Your task to perform on an android device: open sync settings in chrome Image 0: 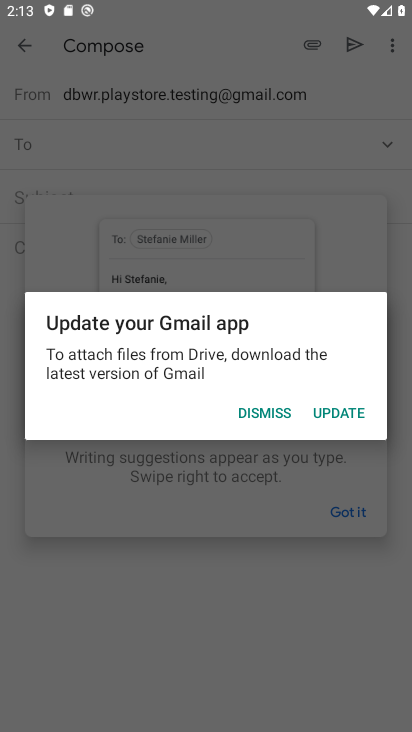
Step 0: press home button
Your task to perform on an android device: open sync settings in chrome Image 1: 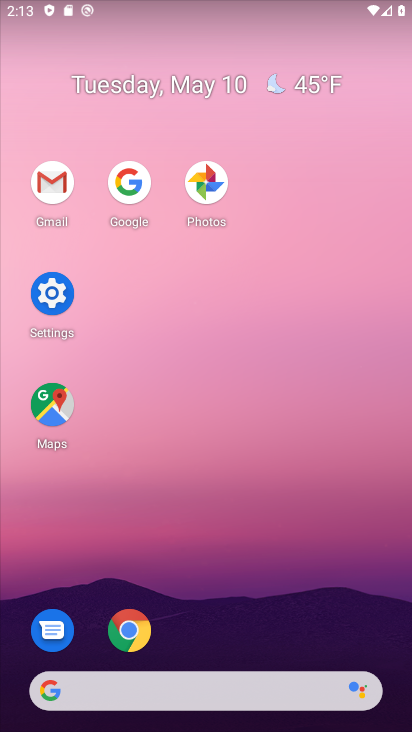
Step 1: click (126, 633)
Your task to perform on an android device: open sync settings in chrome Image 2: 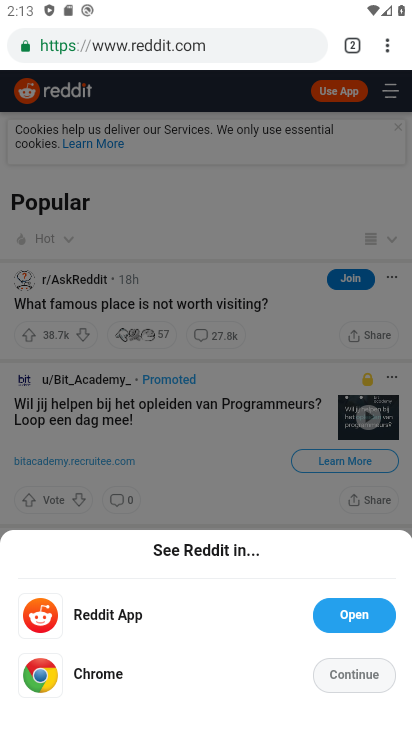
Step 2: click (382, 44)
Your task to perform on an android device: open sync settings in chrome Image 3: 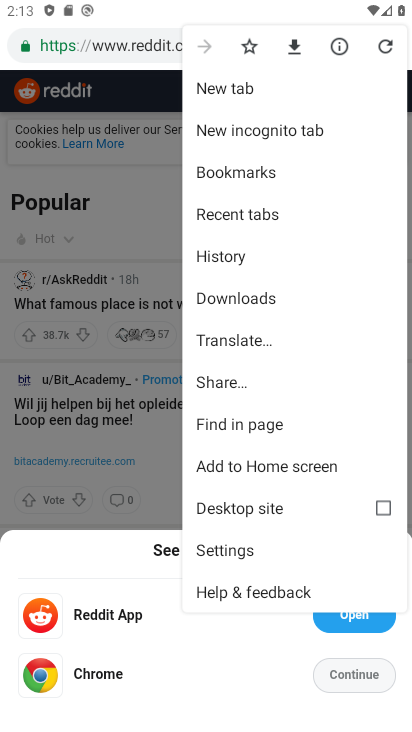
Step 3: click (264, 541)
Your task to perform on an android device: open sync settings in chrome Image 4: 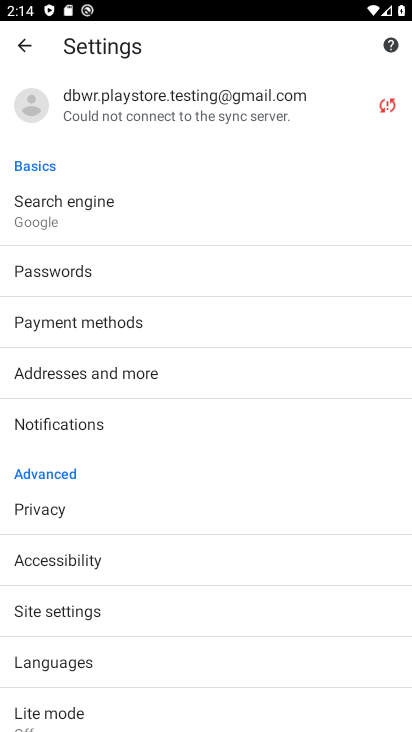
Step 4: click (78, 612)
Your task to perform on an android device: open sync settings in chrome Image 5: 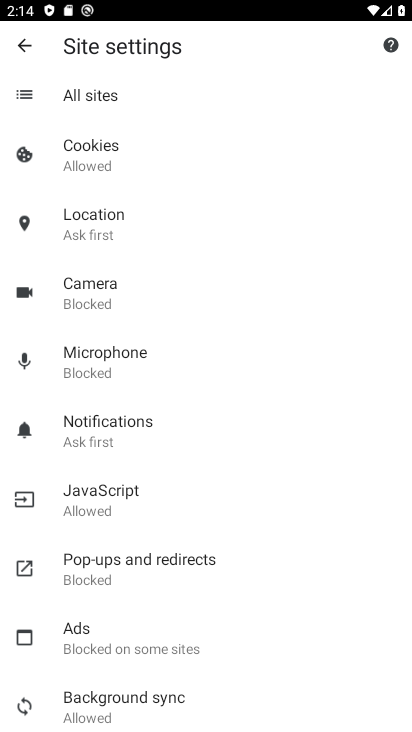
Step 5: click (183, 699)
Your task to perform on an android device: open sync settings in chrome Image 6: 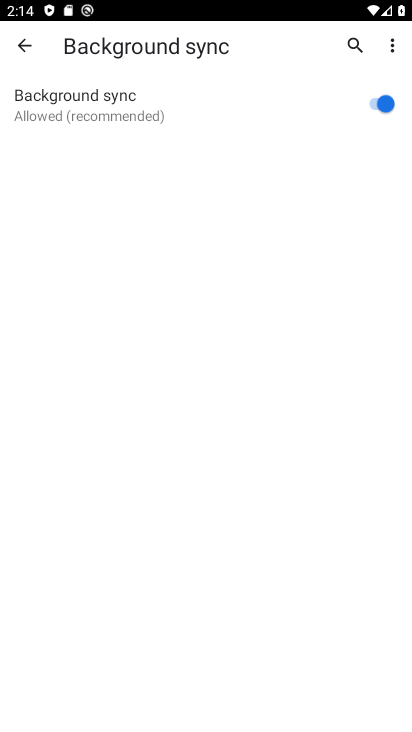
Step 6: task complete